Your task to perform on an android device: Open display settings Image 0: 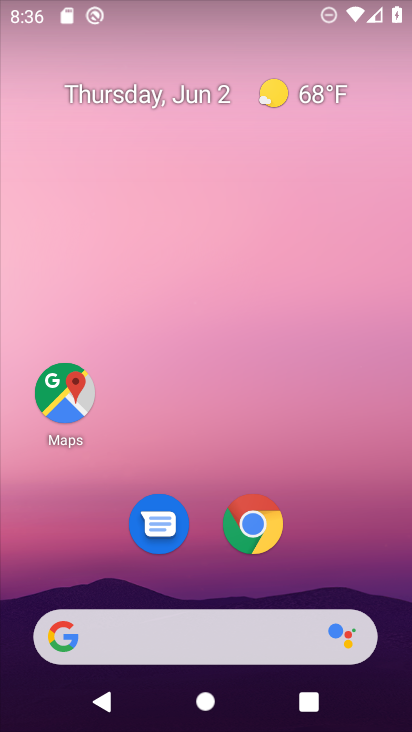
Step 0: drag from (337, 516) to (344, 2)
Your task to perform on an android device: Open display settings Image 1: 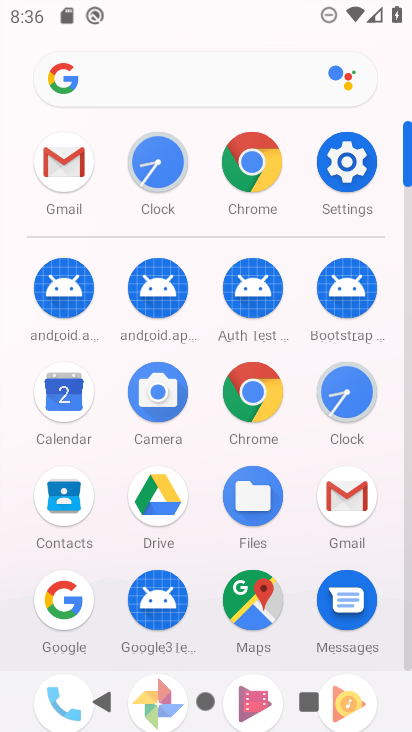
Step 1: click (346, 159)
Your task to perform on an android device: Open display settings Image 2: 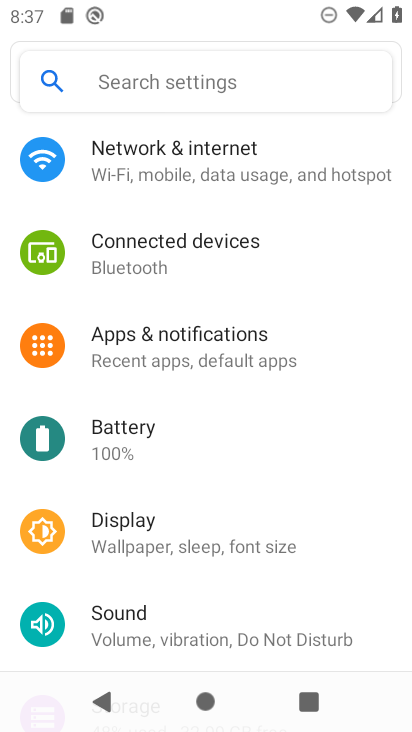
Step 2: click (208, 541)
Your task to perform on an android device: Open display settings Image 3: 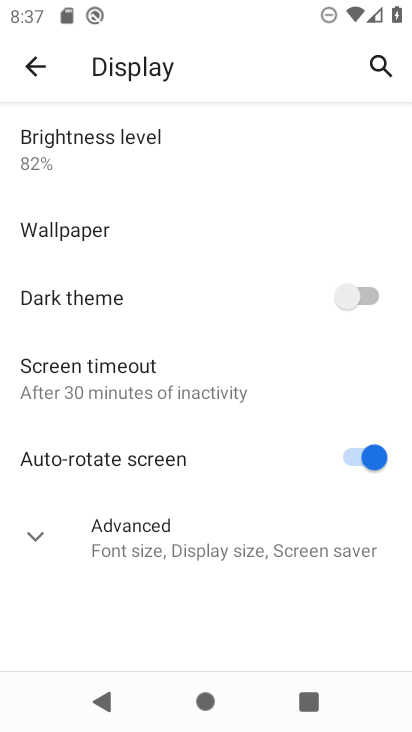
Step 3: task complete